Your task to perform on an android device: toggle javascript in the chrome app Image 0: 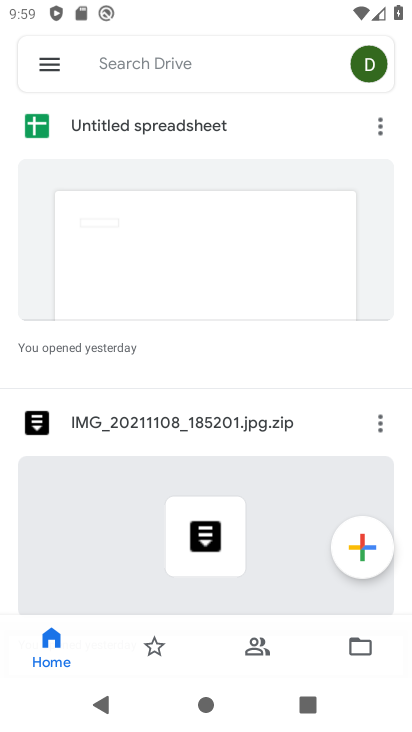
Step 0: press home button
Your task to perform on an android device: toggle javascript in the chrome app Image 1: 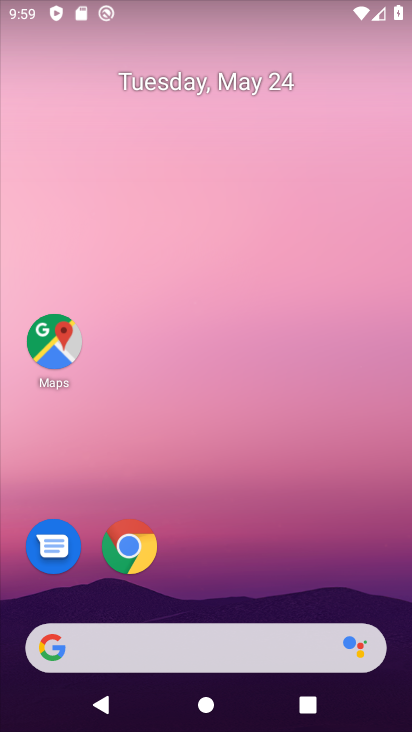
Step 1: drag from (274, 545) to (233, 91)
Your task to perform on an android device: toggle javascript in the chrome app Image 2: 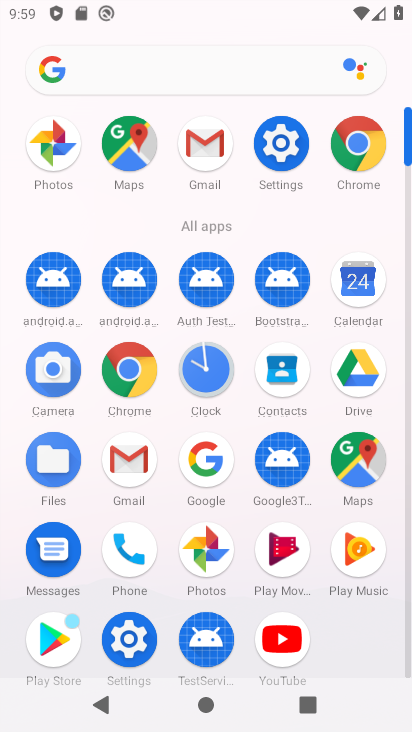
Step 2: click (349, 134)
Your task to perform on an android device: toggle javascript in the chrome app Image 3: 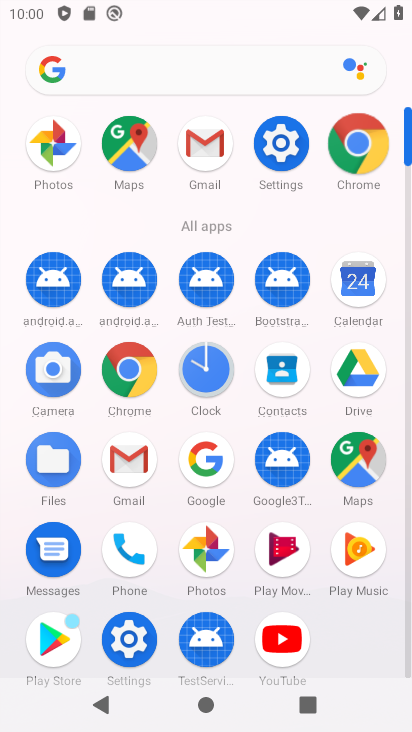
Step 3: click (354, 142)
Your task to perform on an android device: toggle javascript in the chrome app Image 4: 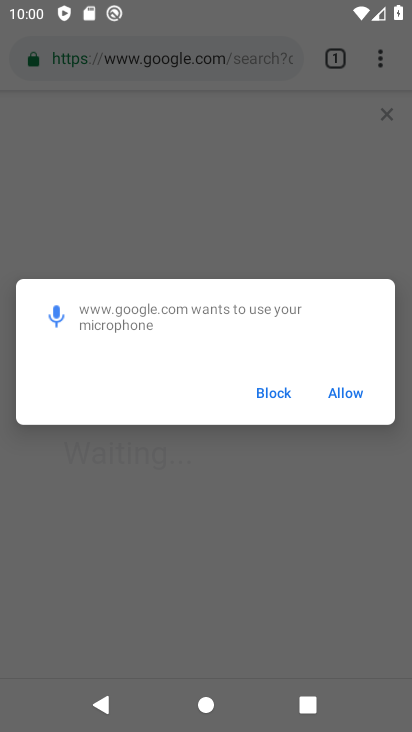
Step 4: click (238, 53)
Your task to perform on an android device: toggle javascript in the chrome app Image 5: 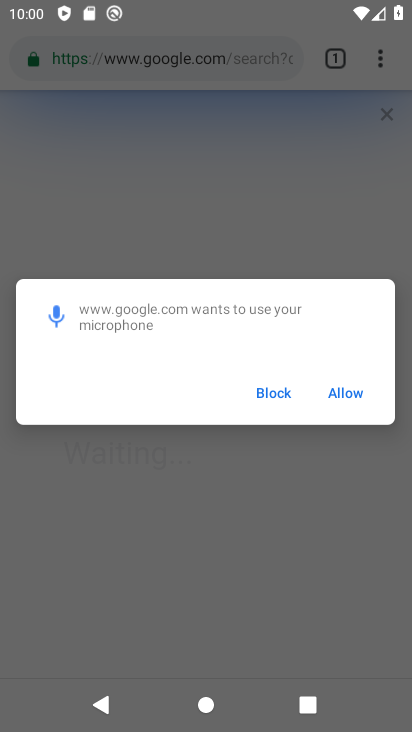
Step 5: press back button
Your task to perform on an android device: toggle javascript in the chrome app Image 6: 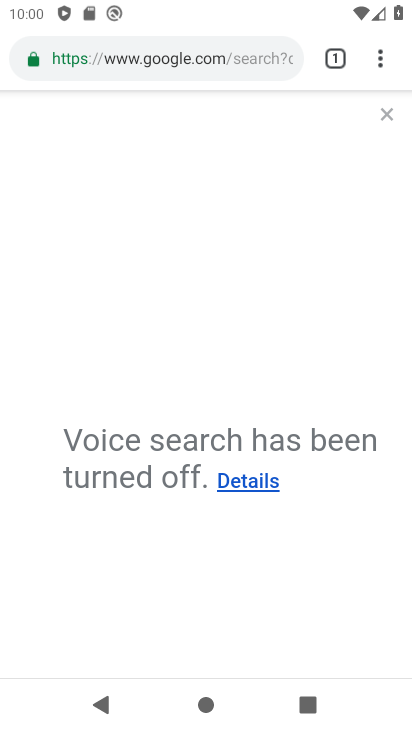
Step 6: click (385, 55)
Your task to perform on an android device: toggle javascript in the chrome app Image 7: 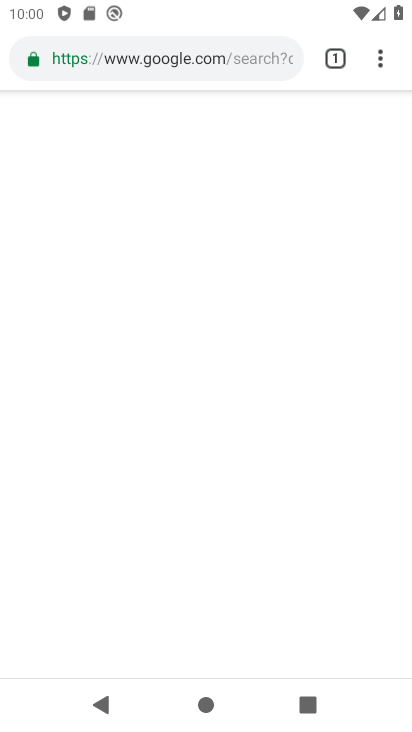
Step 7: drag from (380, 53) to (199, 577)
Your task to perform on an android device: toggle javascript in the chrome app Image 8: 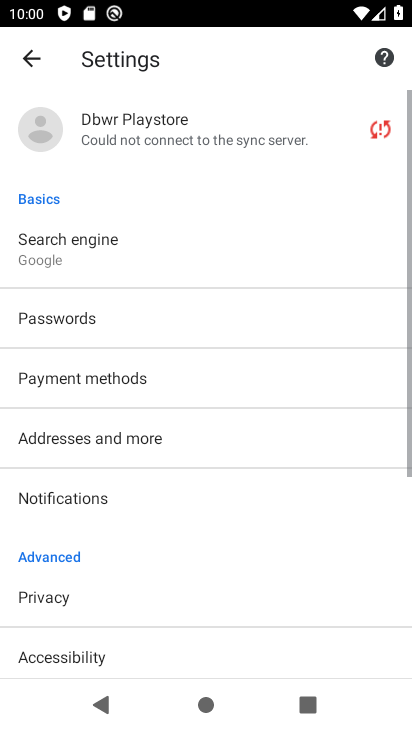
Step 8: drag from (197, 556) to (240, 261)
Your task to perform on an android device: toggle javascript in the chrome app Image 9: 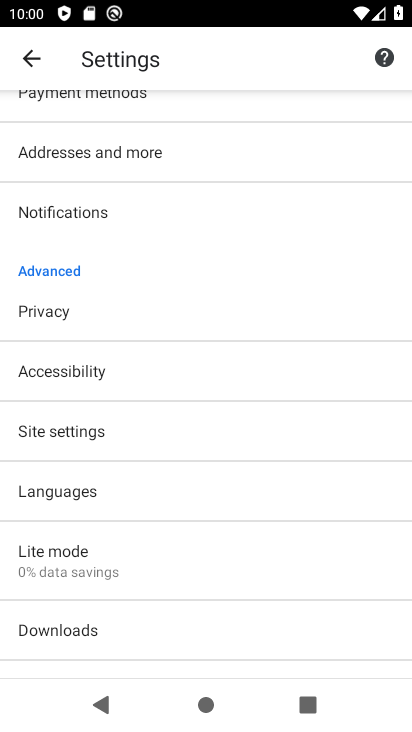
Step 9: click (92, 431)
Your task to perform on an android device: toggle javascript in the chrome app Image 10: 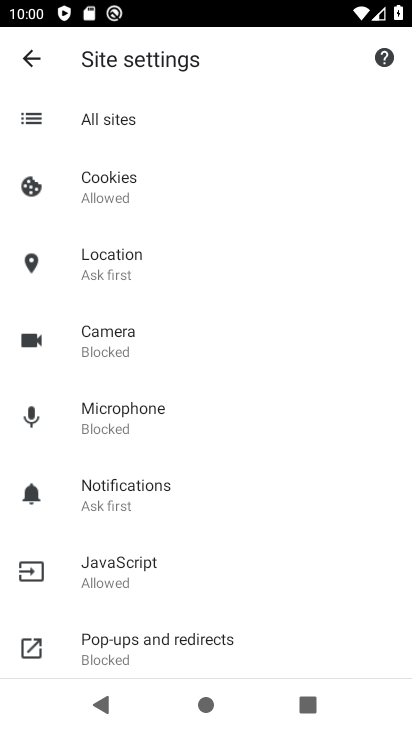
Step 10: click (119, 563)
Your task to perform on an android device: toggle javascript in the chrome app Image 11: 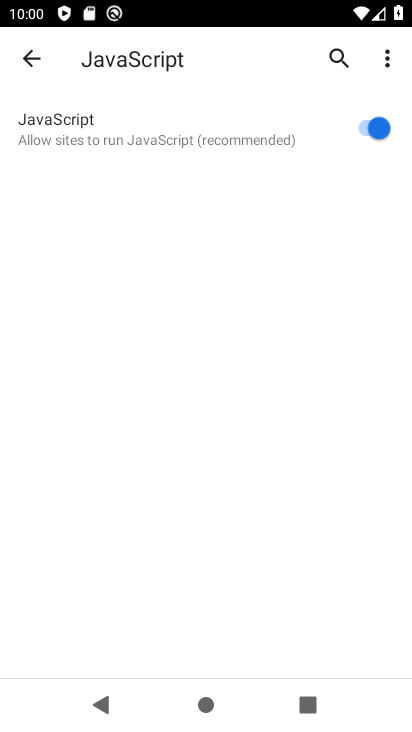
Step 11: click (374, 129)
Your task to perform on an android device: toggle javascript in the chrome app Image 12: 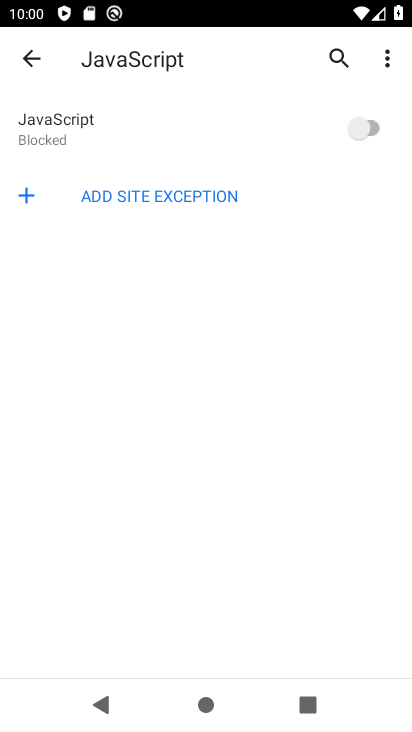
Step 12: task complete